Your task to perform on an android device: turn notification dots on Image 0: 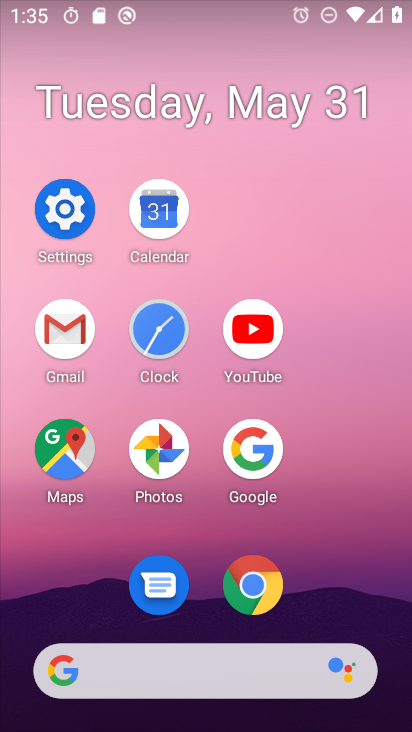
Step 0: click (145, 196)
Your task to perform on an android device: turn notification dots on Image 1: 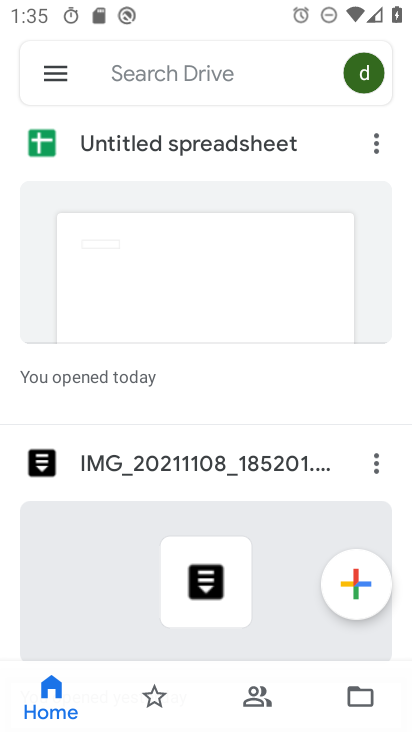
Step 1: press home button
Your task to perform on an android device: turn notification dots on Image 2: 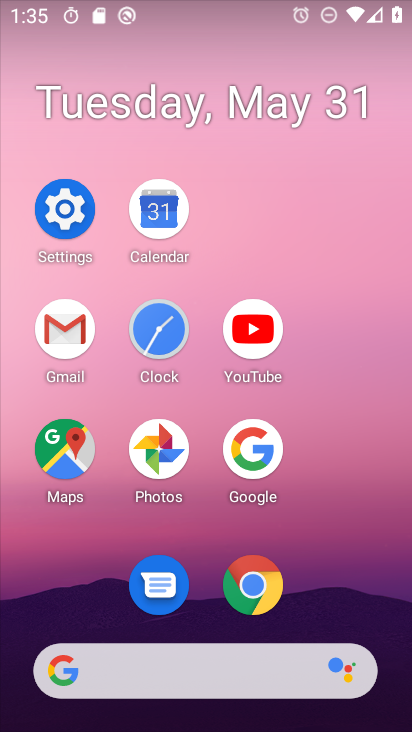
Step 2: click (59, 193)
Your task to perform on an android device: turn notification dots on Image 3: 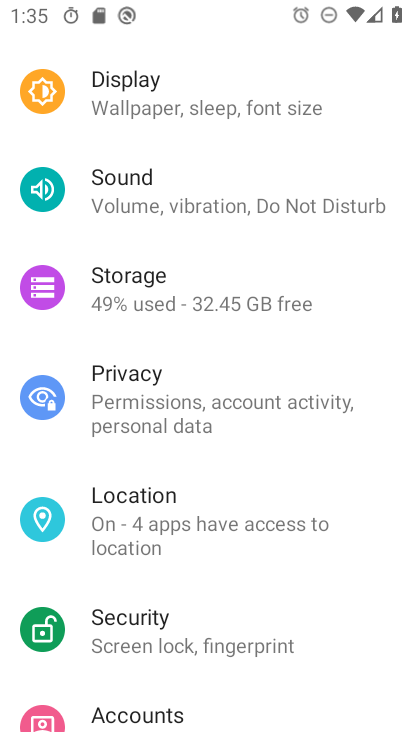
Step 3: drag from (187, 245) to (201, 687)
Your task to perform on an android device: turn notification dots on Image 4: 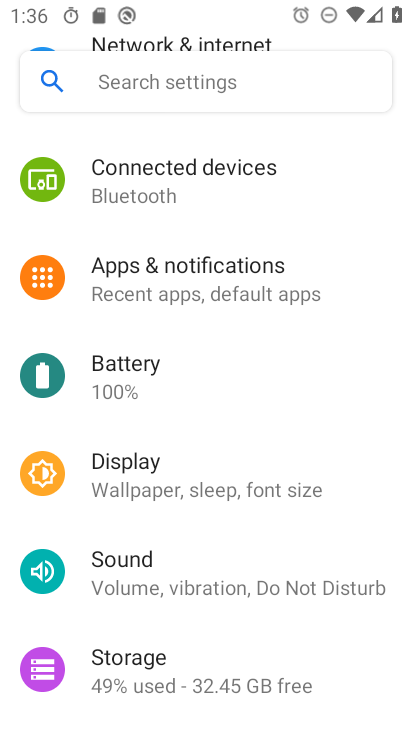
Step 4: drag from (294, 282) to (299, 587)
Your task to perform on an android device: turn notification dots on Image 5: 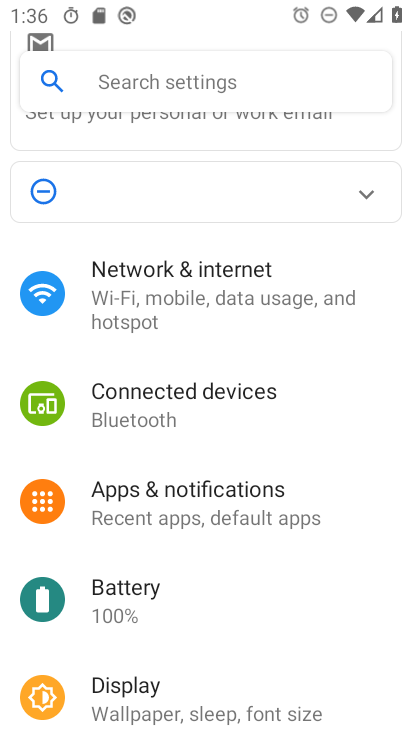
Step 5: drag from (313, 172) to (287, 582)
Your task to perform on an android device: turn notification dots on Image 6: 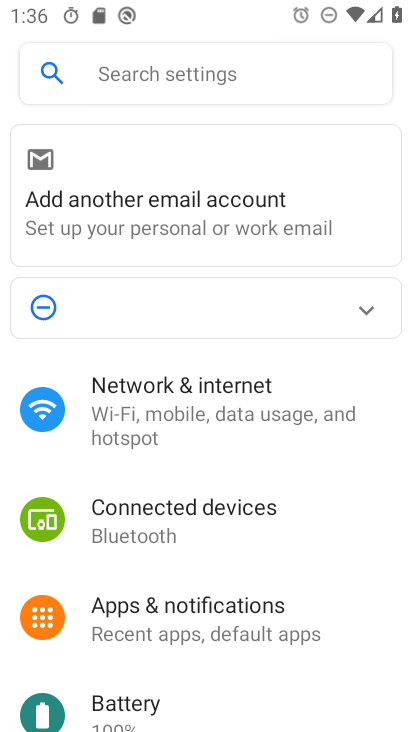
Step 6: click (231, 607)
Your task to perform on an android device: turn notification dots on Image 7: 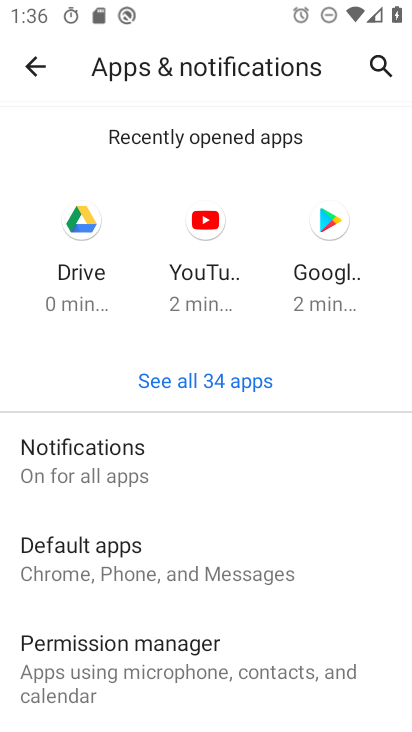
Step 7: click (143, 468)
Your task to perform on an android device: turn notification dots on Image 8: 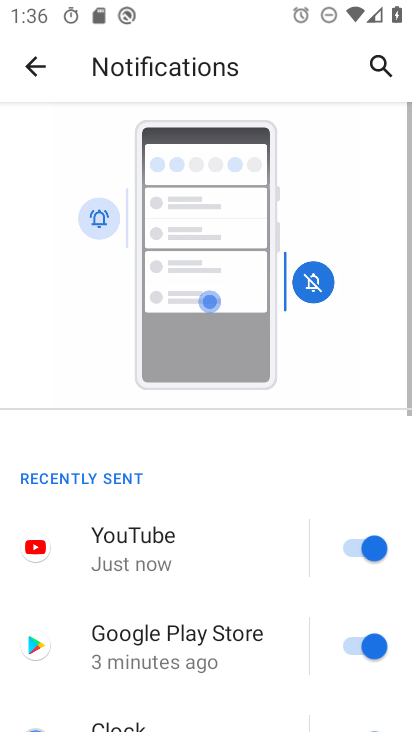
Step 8: drag from (225, 601) to (255, 138)
Your task to perform on an android device: turn notification dots on Image 9: 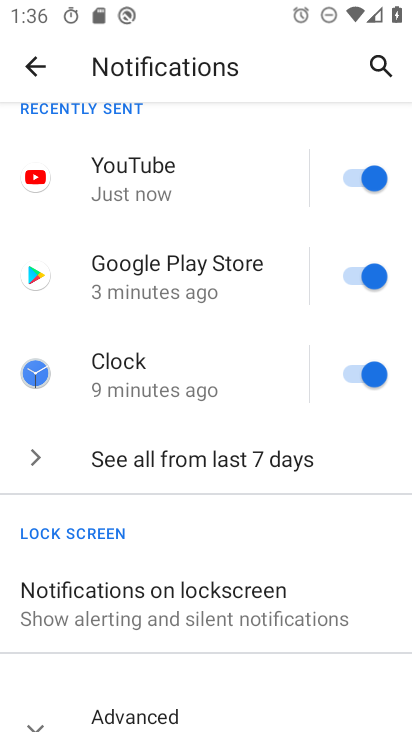
Step 9: click (202, 694)
Your task to perform on an android device: turn notification dots on Image 10: 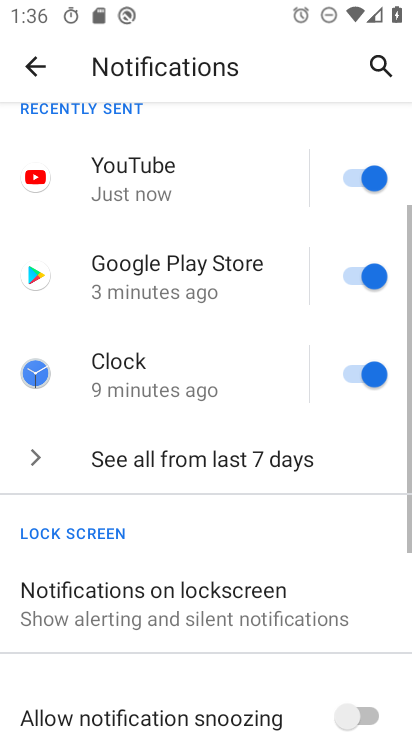
Step 10: task complete